Your task to perform on an android device: open a new tab in the chrome app Image 0: 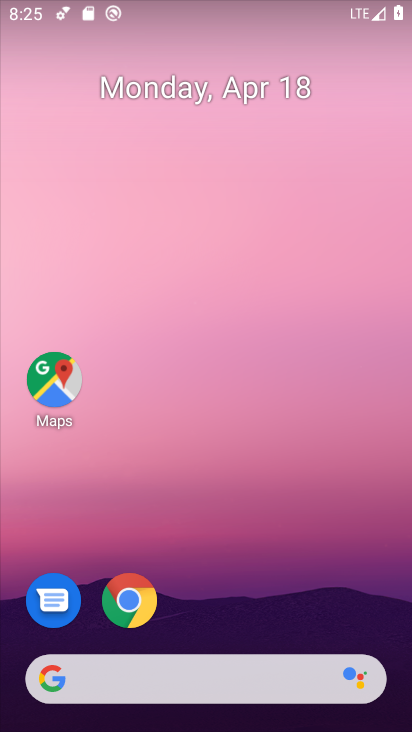
Step 0: drag from (394, 637) to (278, 19)
Your task to perform on an android device: open a new tab in the chrome app Image 1: 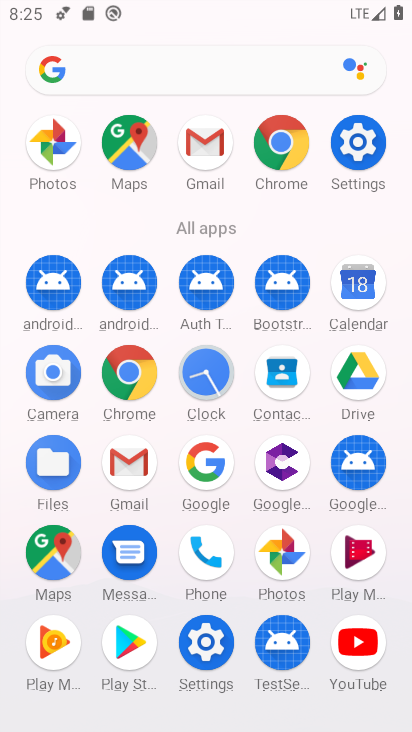
Step 1: click (276, 135)
Your task to perform on an android device: open a new tab in the chrome app Image 2: 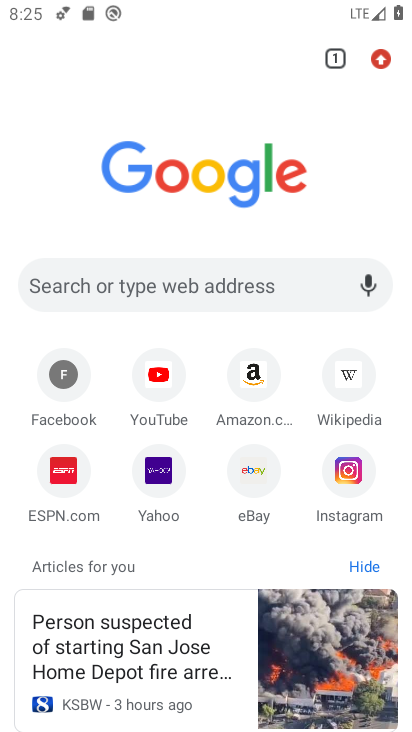
Step 2: click (374, 54)
Your task to perform on an android device: open a new tab in the chrome app Image 3: 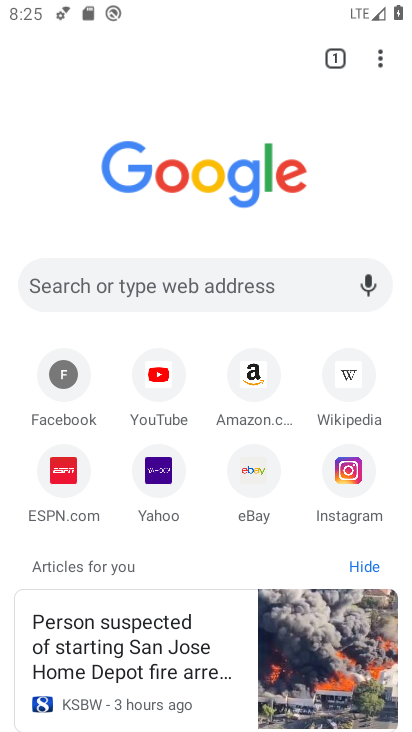
Step 3: click (379, 61)
Your task to perform on an android device: open a new tab in the chrome app Image 4: 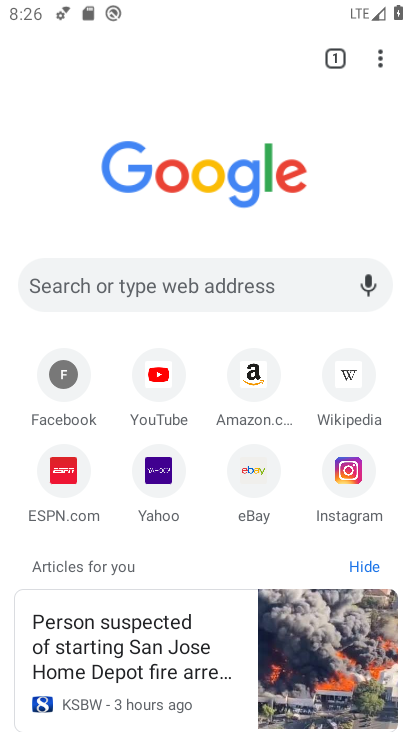
Step 4: task complete